Your task to perform on an android device: check storage Image 0: 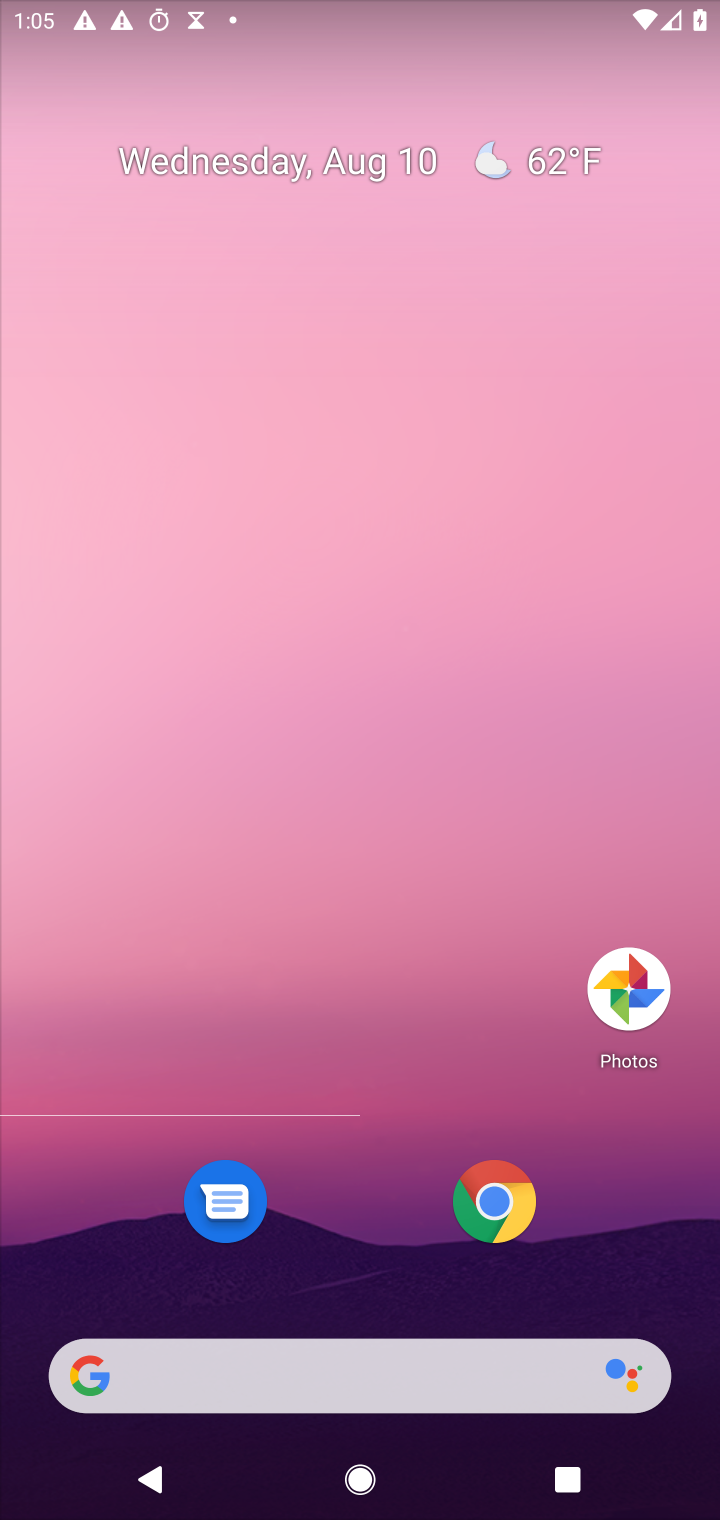
Step 0: press home button
Your task to perform on an android device: check storage Image 1: 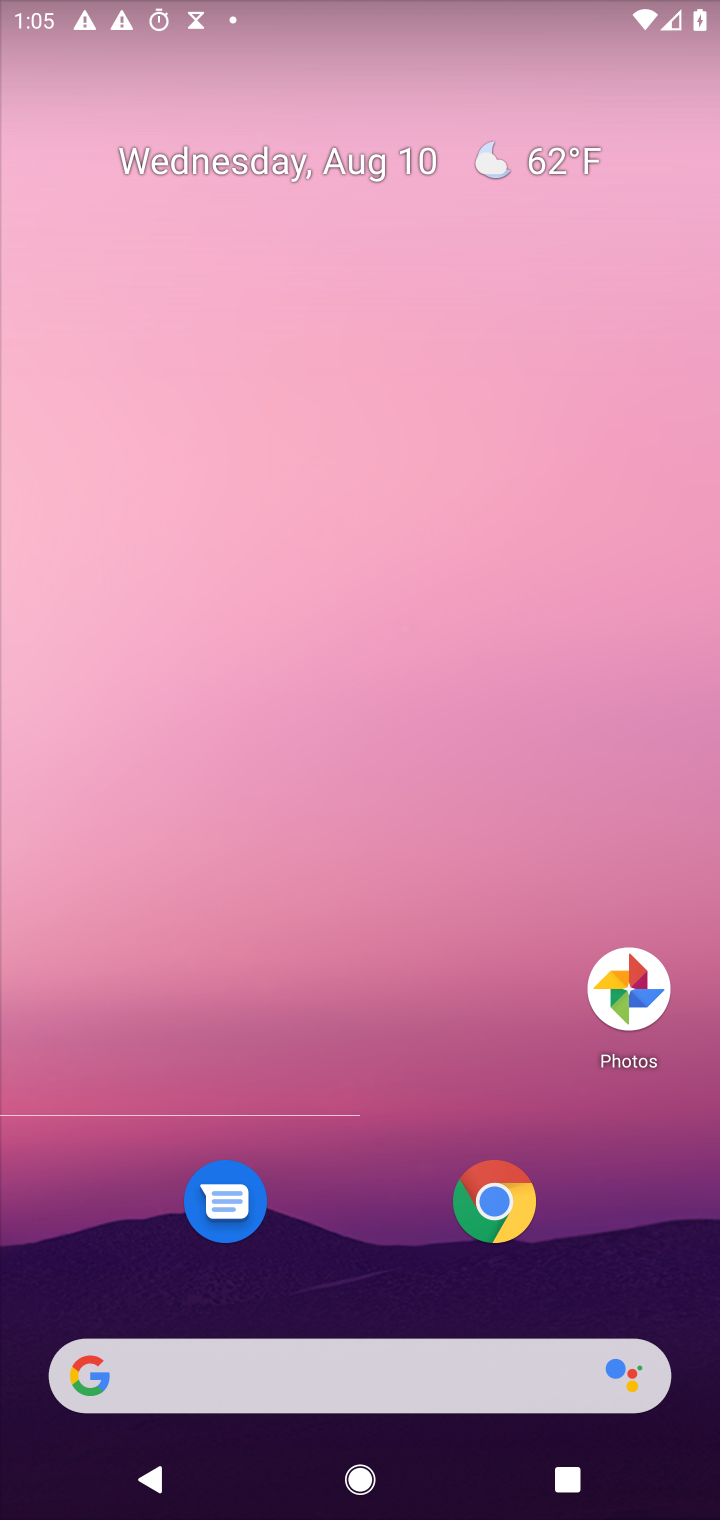
Step 1: drag from (343, 817) to (413, 85)
Your task to perform on an android device: check storage Image 2: 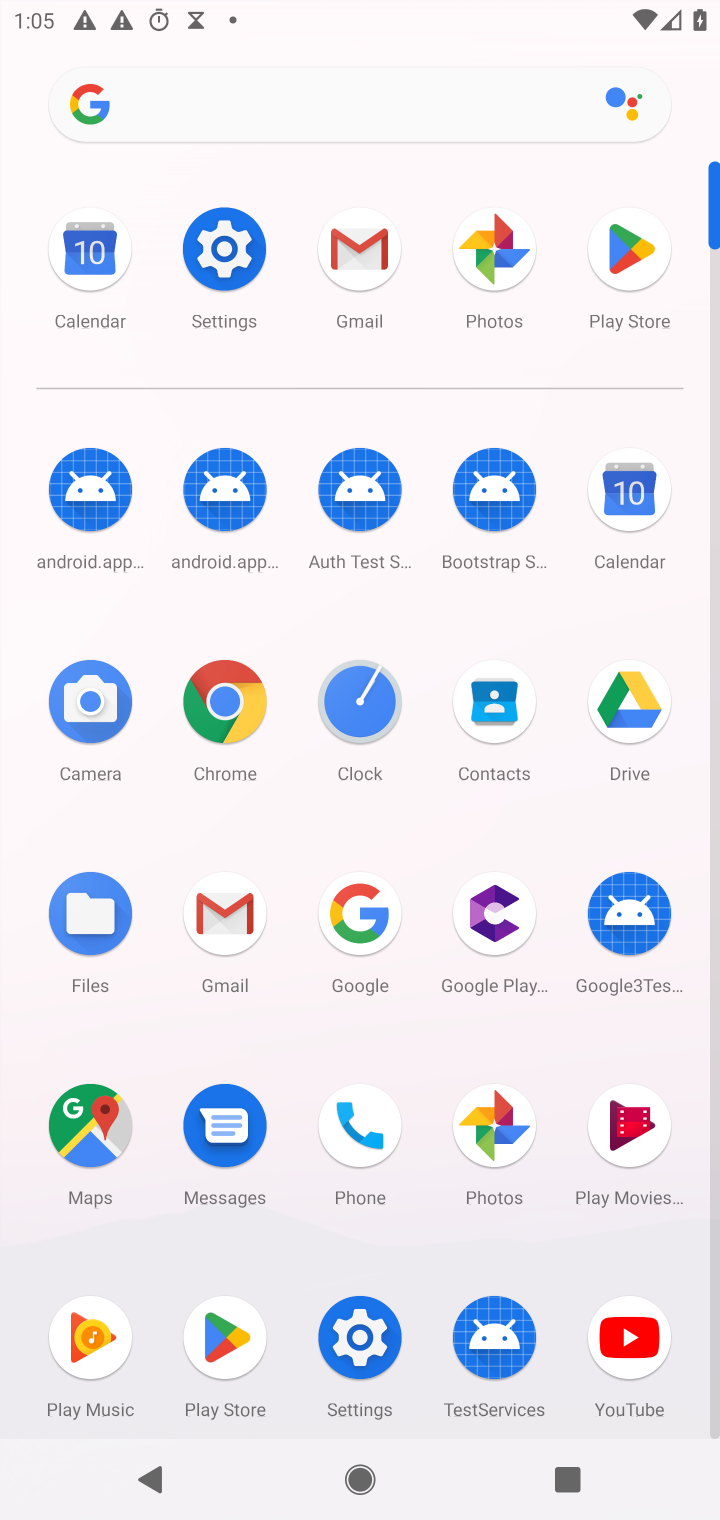
Step 2: click (202, 246)
Your task to perform on an android device: check storage Image 3: 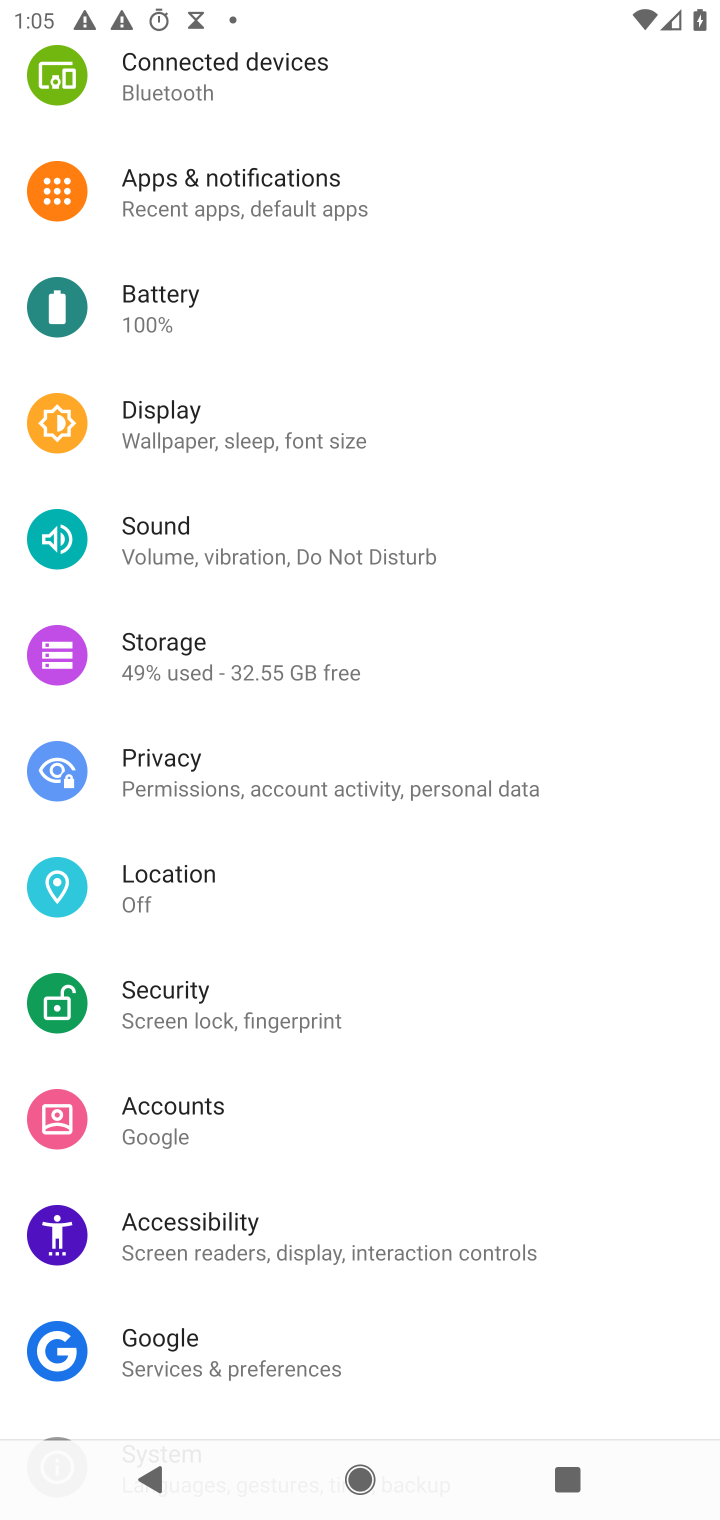
Step 3: click (201, 631)
Your task to perform on an android device: check storage Image 4: 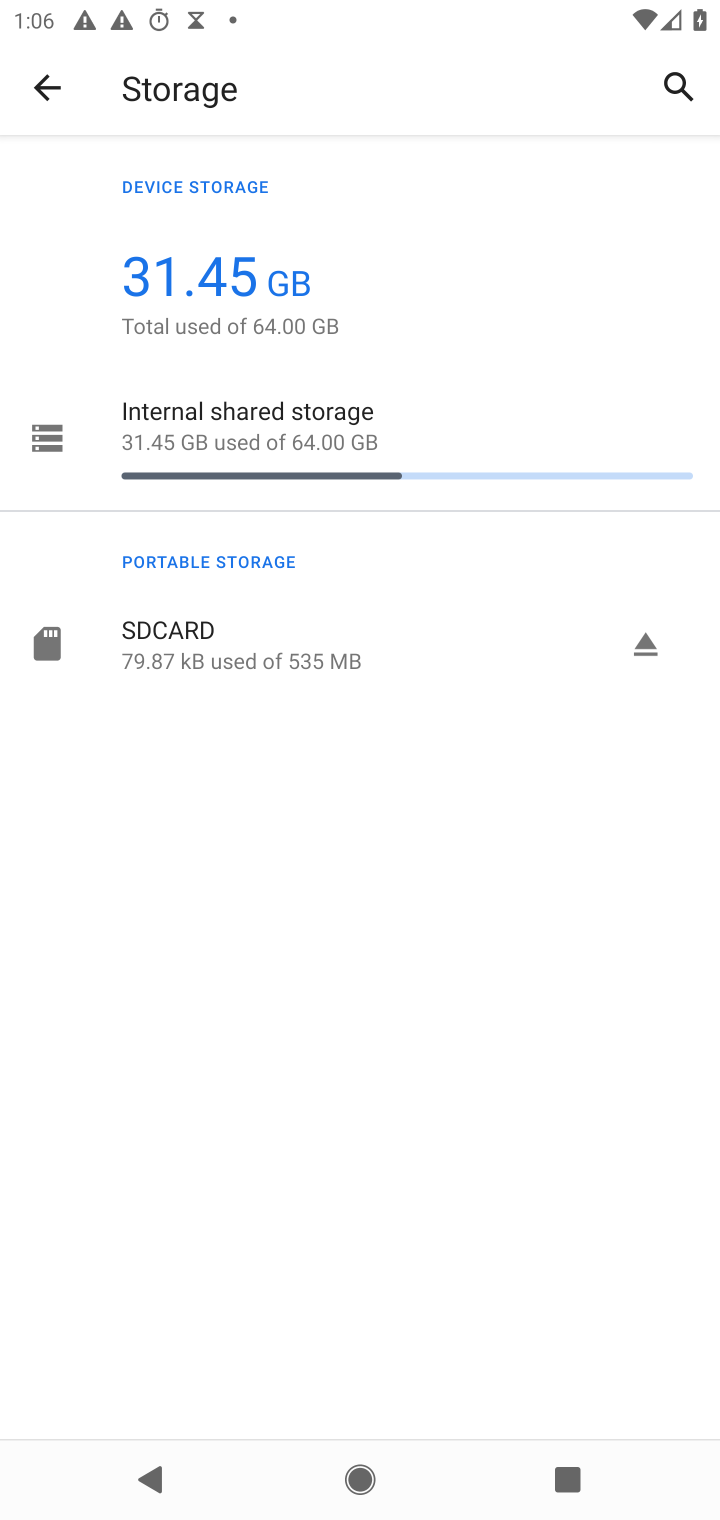
Step 4: task complete